Your task to perform on an android device: turn smart compose on in the gmail app Image 0: 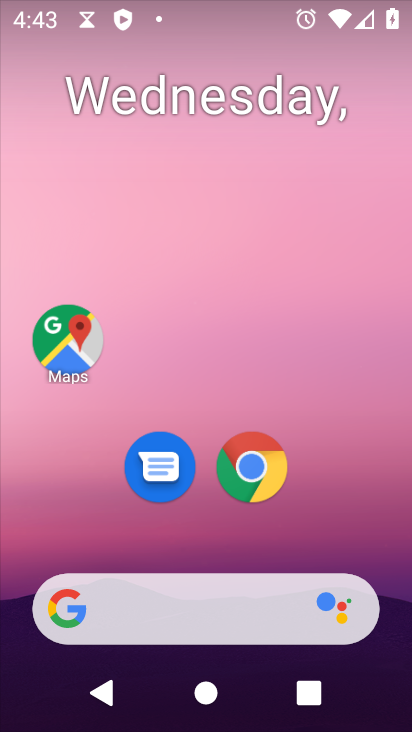
Step 0: drag from (358, 500) to (358, 9)
Your task to perform on an android device: turn smart compose on in the gmail app Image 1: 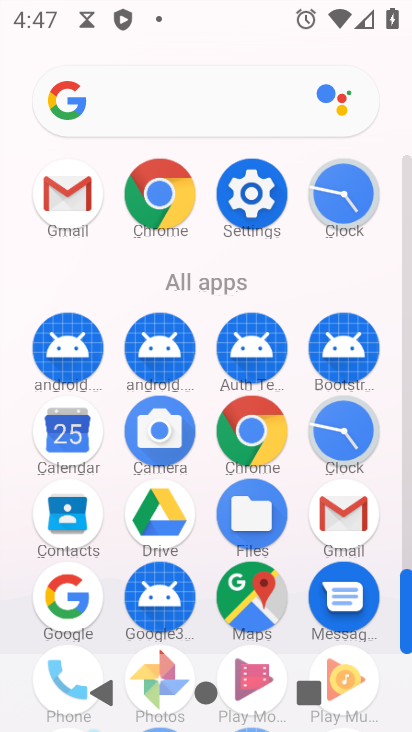
Step 1: click (77, 190)
Your task to perform on an android device: turn smart compose on in the gmail app Image 2: 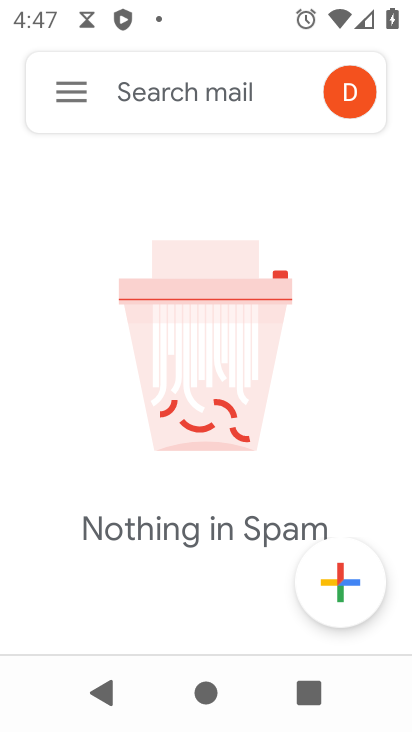
Step 2: click (57, 111)
Your task to perform on an android device: turn smart compose on in the gmail app Image 3: 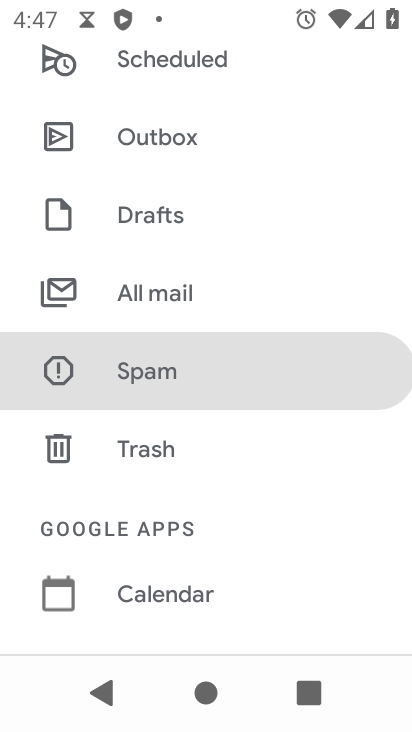
Step 3: drag from (134, 517) to (196, 162)
Your task to perform on an android device: turn smart compose on in the gmail app Image 4: 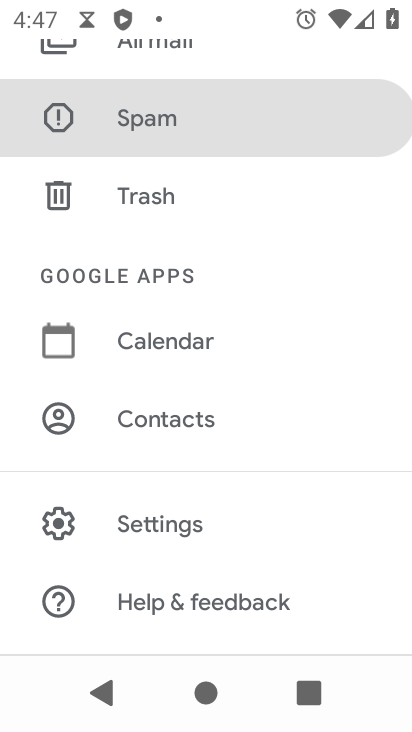
Step 4: click (128, 508)
Your task to perform on an android device: turn smart compose on in the gmail app Image 5: 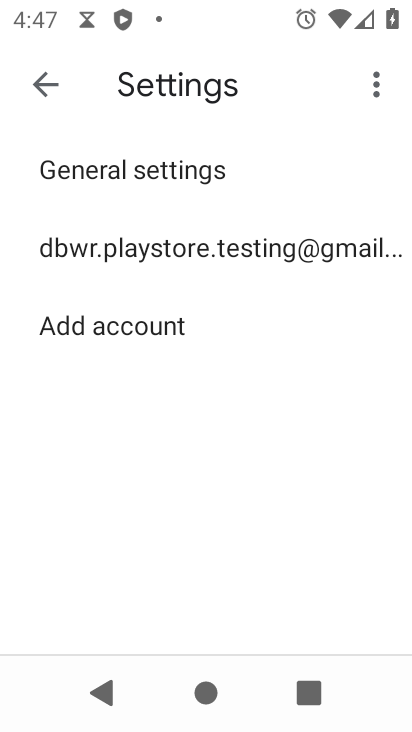
Step 5: click (138, 246)
Your task to perform on an android device: turn smart compose on in the gmail app Image 6: 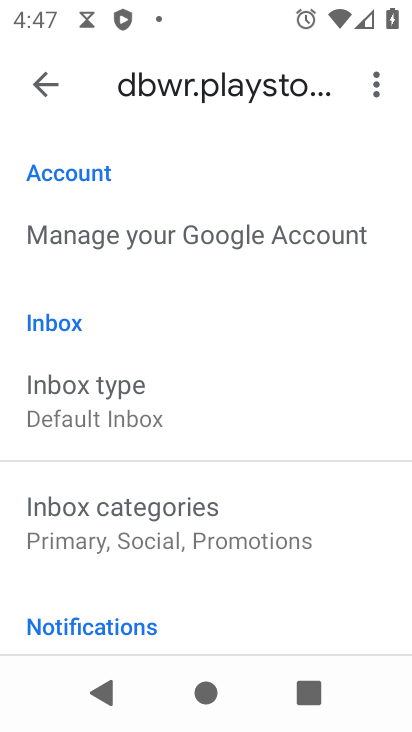
Step 6: task complete